Your task to perform on an android device: Search for a 100 ft extension cord Image 0: 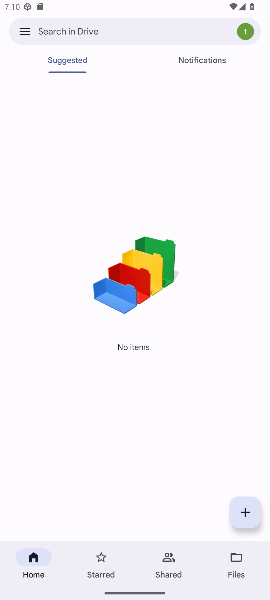
Step 0: press home button
Your task to perform on an android device: Search for a 100 ft extension cord Image 1: 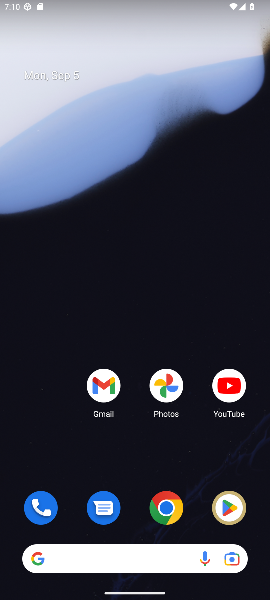
Step 1: click (163, 510)
Your task to perform on an android device: Search for a 100 ft extension cord Image 2: 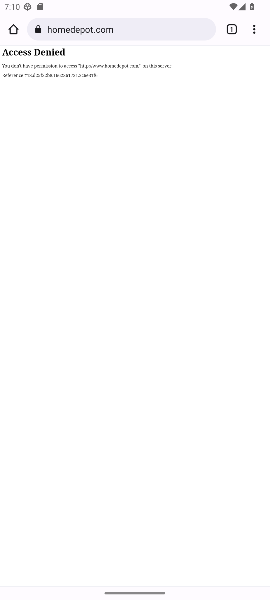
Step 2: click (99, 33)
Your task to perform on an android device: Search for a 100 ft extension cord Image 3: 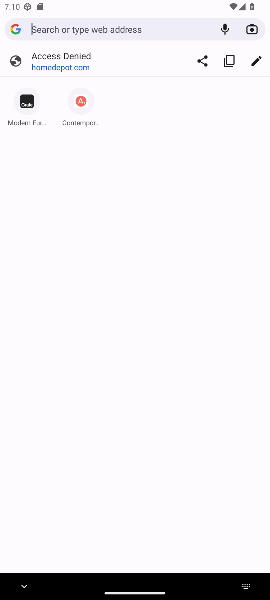
Step 3: type "100 ft extension cord"
Your task to perform on an android device: Search for a 100 ft extension cord Image 4: 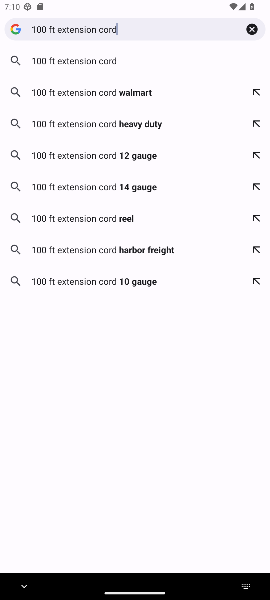
Step 4: click (97, 66)
Your task to perform on an android device: Search for a 100 ft extension cord Image 5: 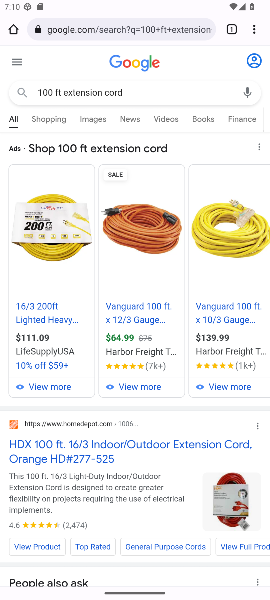
Step 5: click (62, 246)
Your task to perform on an android device: Search for a 100 ft extension cord Image 6: 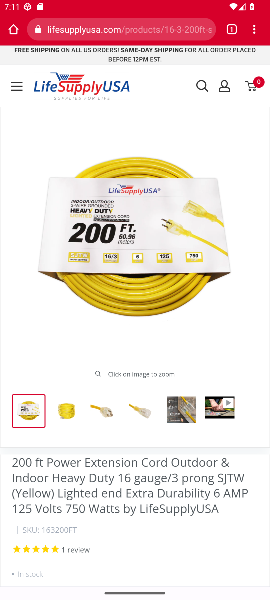
Step 6: task complete